Your task to perform on an android device: all mails in gmail Image 0: 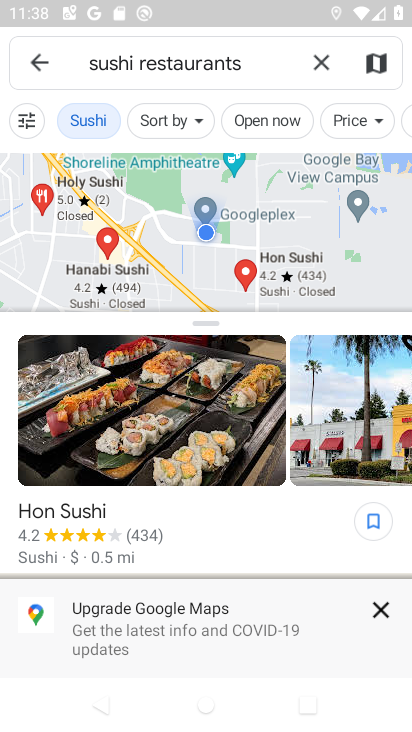
Step 0: press home button
Your task to perform on an android device: all mails in gmail Image 1: 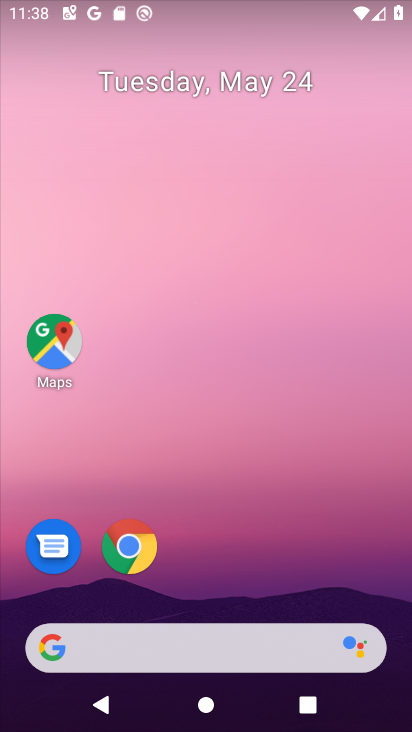
Step 1: drag from (215, 605) to (305, 4)
Your task to perform on an android device: all mails in gmail Image 2: 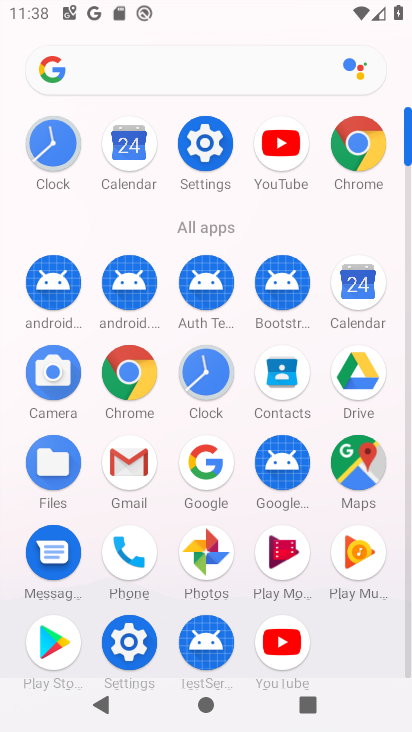
Step 2: click (124, 460)
Your task to perform on an android device: all mails in gmail Image 3: 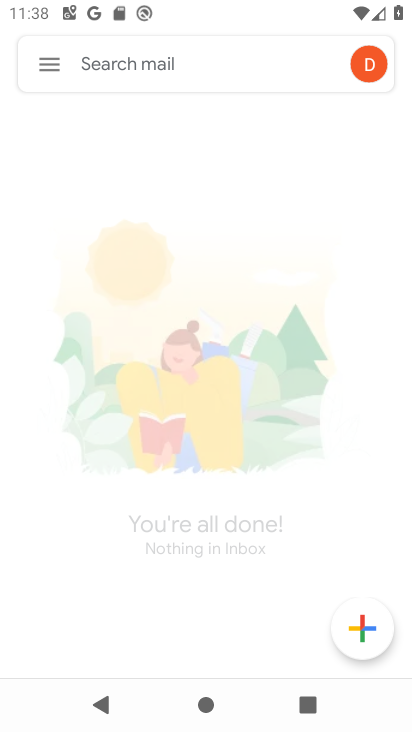
Step 3: click (48, 62)
Your task to perform on an android device: all mails in gmail Image 4: 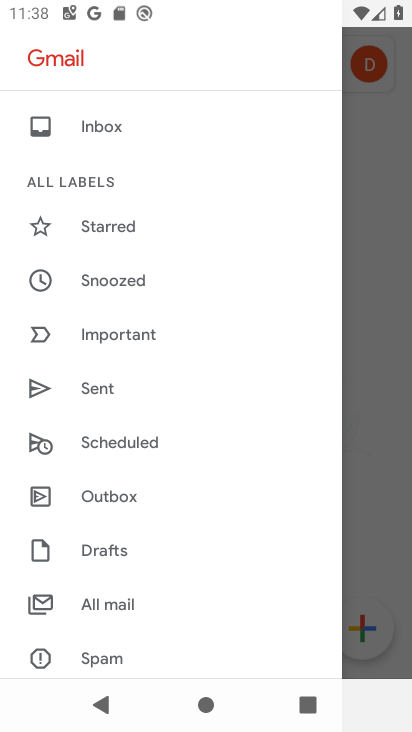
Step 4: click (125, 606)
Your task to perform on an android device: all mails in gmail Image 5: 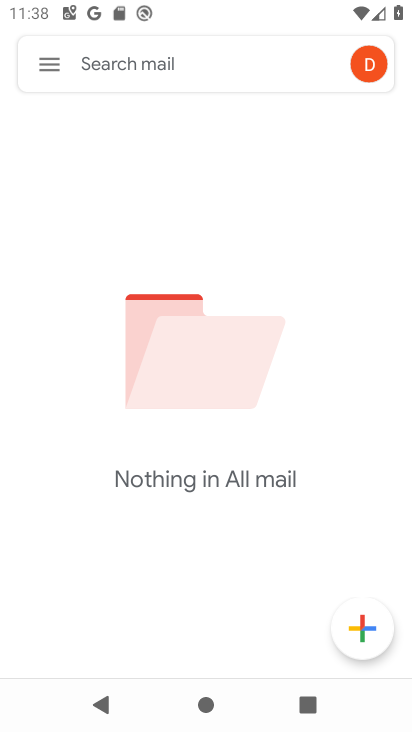
Step 5: task complete